Your task to perform on an android device: turn on sleep mode Image 0: 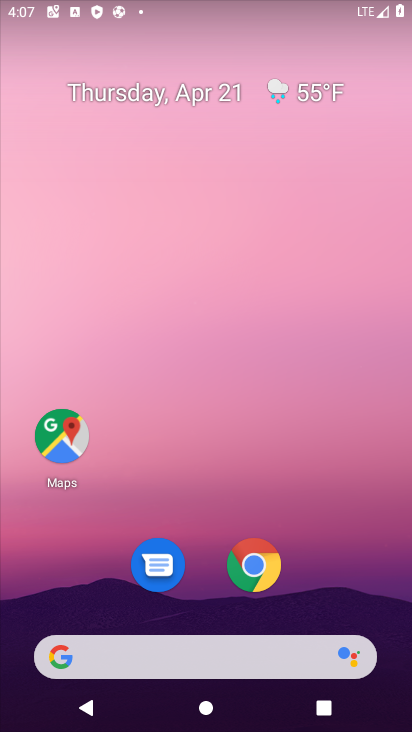
Step 0: drag from (342, 492) to (298, 105)
Your task to perform on an android device: turn on sleep mode Image 1: 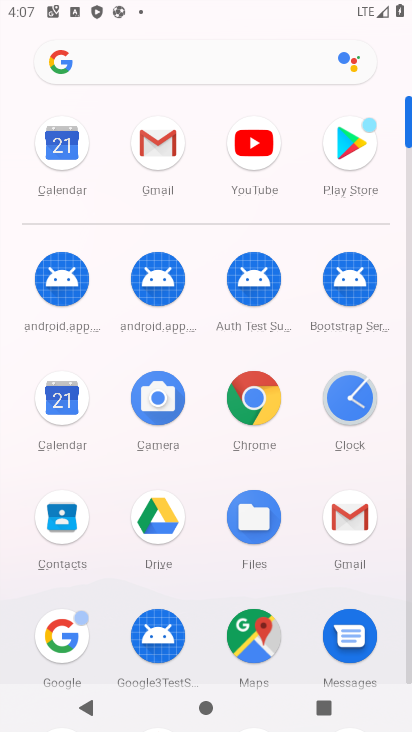
Step 1: drag from (211, 551) to (207, 185)
Your task to perform on an android device: turn on sleep mode Image 2: 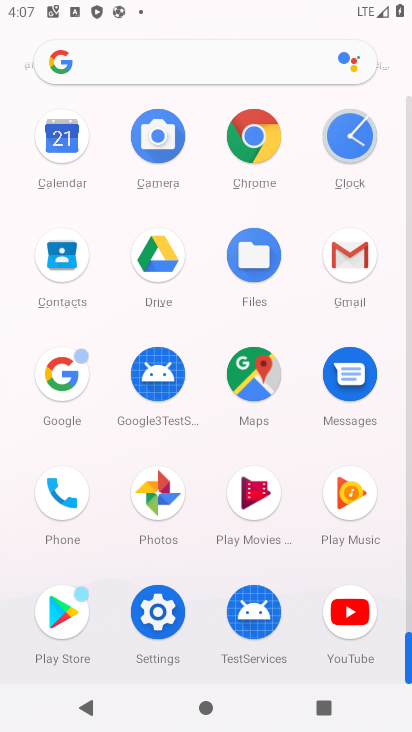
Step 2: click (171, 599)
Your task to perform on an android device: turn on sleep mode Image 3: 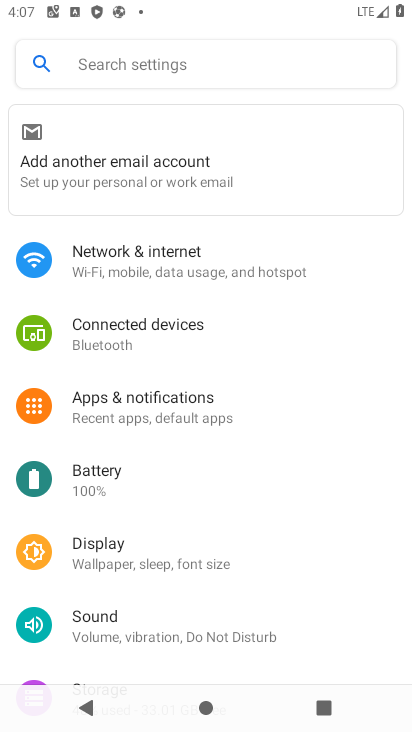
Step 3: click (232, 550)
Your task to perform on an android device: turn on sleep mode Image 4: 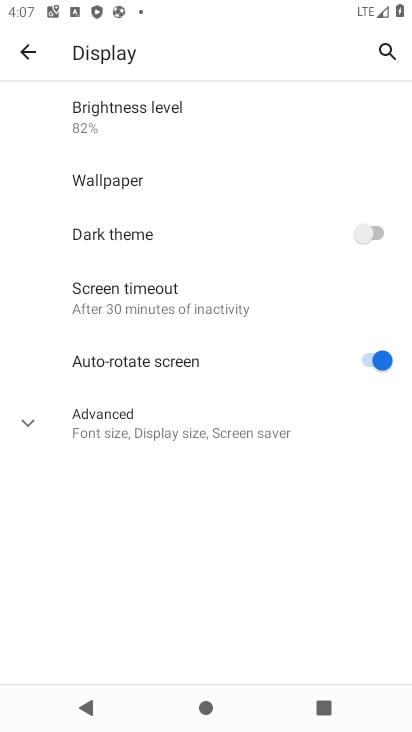
Step 4: click (27, 421)
Your task to perform on an android device: turn on sleep mode Image 5: 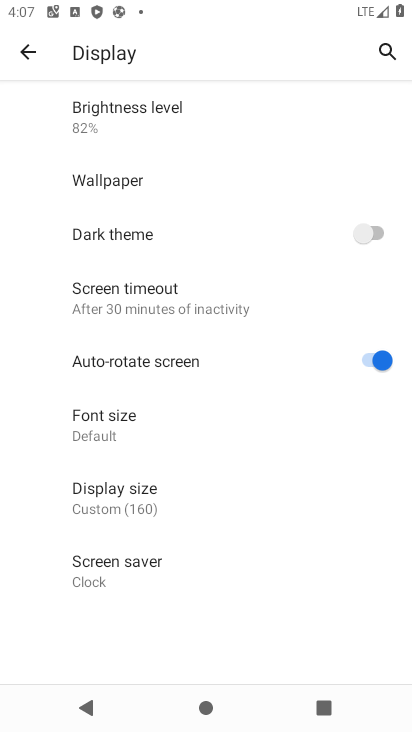
Step 5: task complete